Your task to perform on an android device: What's on my calendar tomorrow? Image 0: 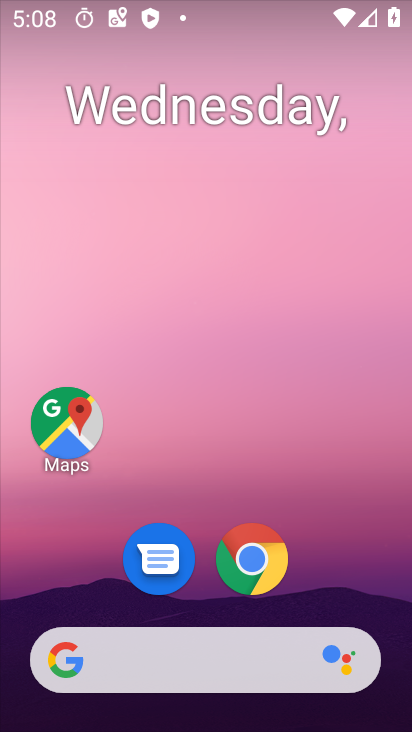
Step 0: drag from (333, 557) to (212, 49)
Your task to perform on an android device: What's on my calendar tomorrow? Image 1: 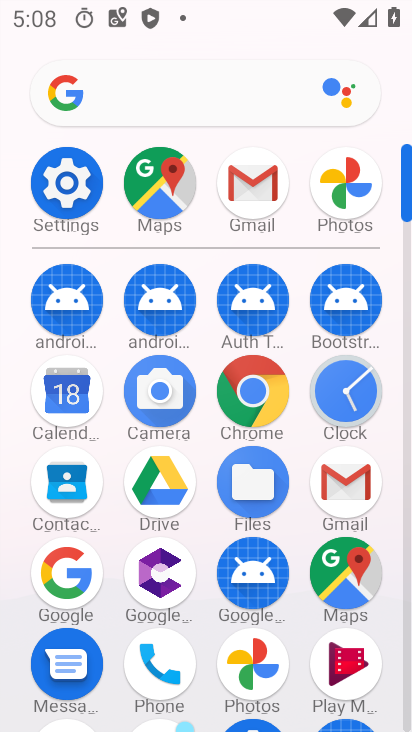
Step 1: click (67, 392)
Your task to perform on an android device: What's on my calendar tomorrow? Image 2: 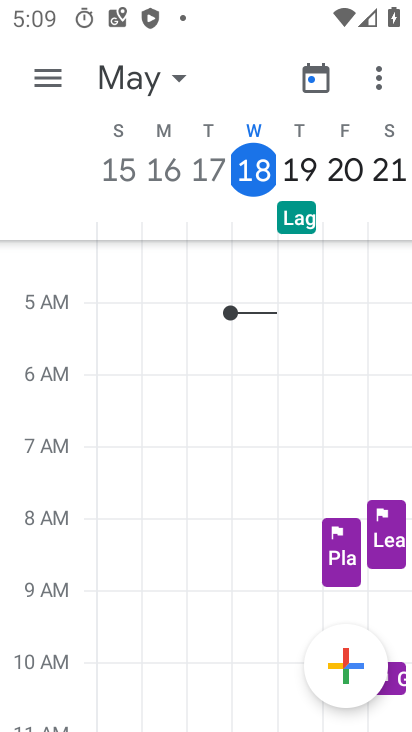
Step 2: task complete